Your task to perform on an android device: Show me recent news Image 0: 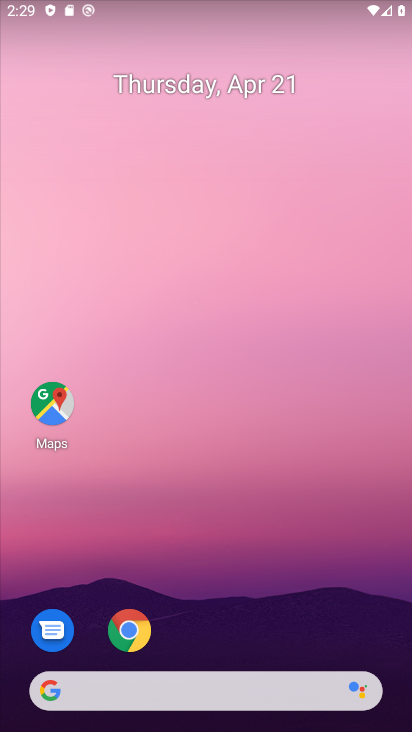
Step 0: drag from (2, 290) to (396, 267)
Your task to perform on an android device: Show me recent news Image 1: 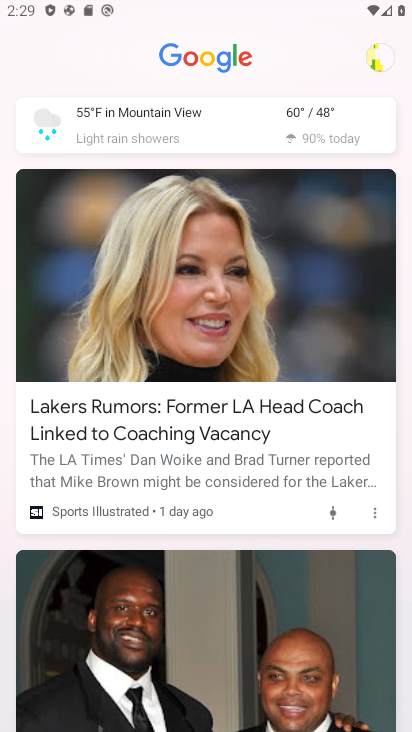
Step 1: task complete